Your task to perform on an android device: Search for Mexican restaurants on Maps Image 0: 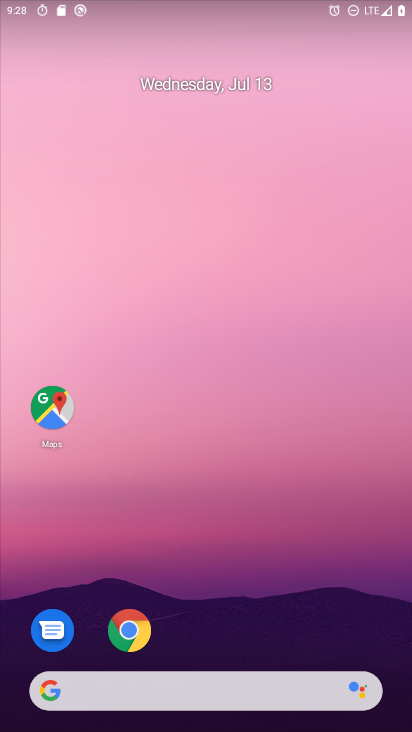
Step 0: drag from (398, 658) to (214, 40)
Your task to perform on an android device: Search for Mexican restaurants on Maps Image 1: 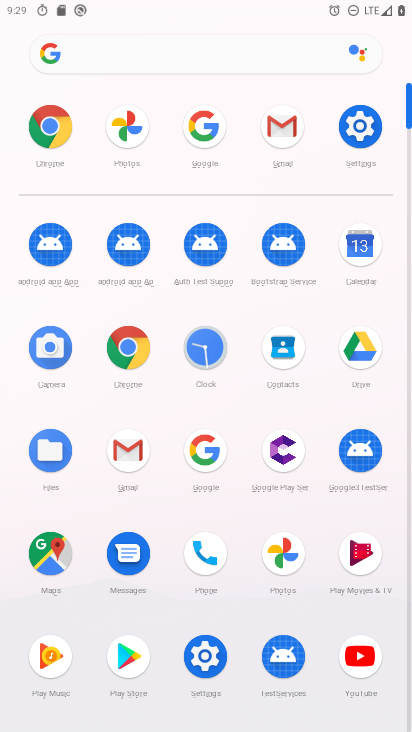
Step 1: click (48, 565)
Your task to perform on an android device: Search for Mexican restaurants on Maps Image 2: 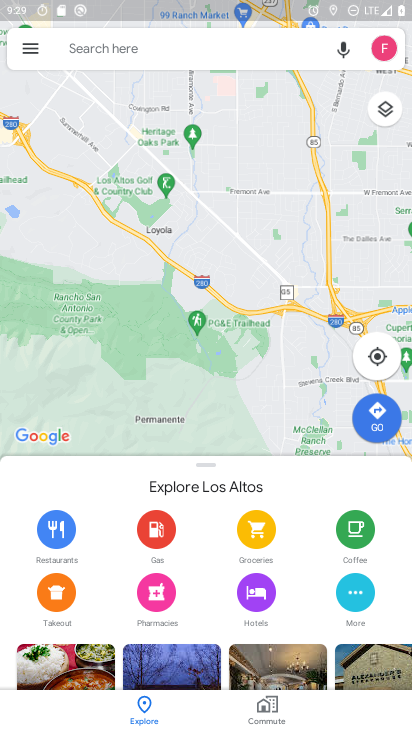
Step 2: click (106, 42)
Your task to perform on an android device: Search for Mexican restaurants on Maps Image 3: 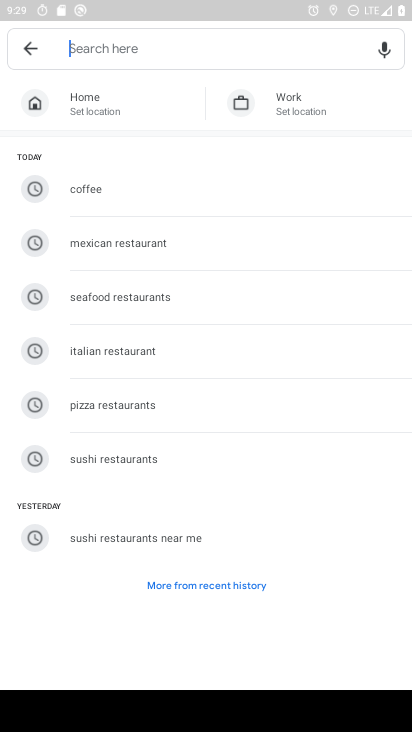
Step 3: click (105, 247)
Your task to perform on an android device: Search for Mexican restaurants on Maps Image 4: 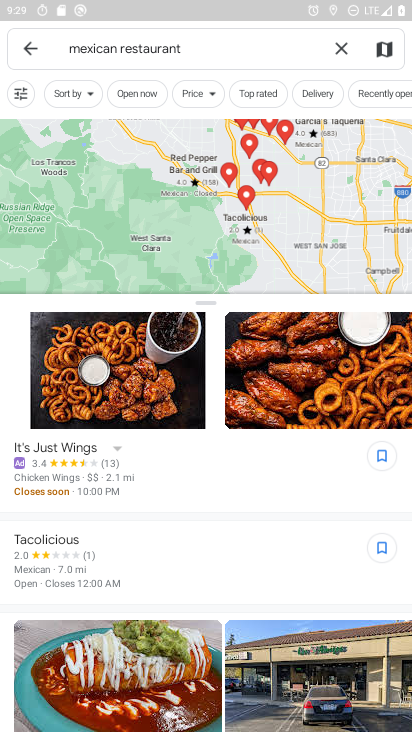
Step 4: task complete